Your task to perform on an android device: open app "Grab" (install if not already installed) and go to login screen Image 0: 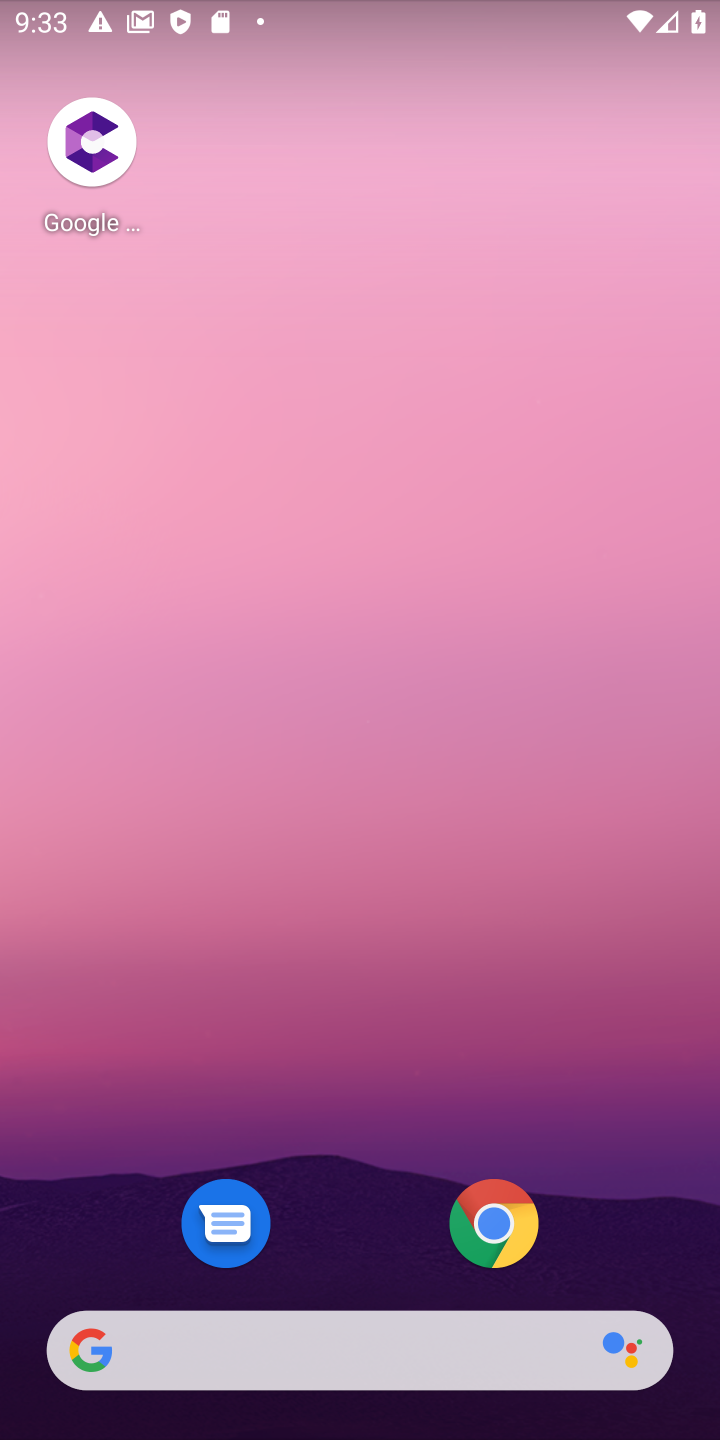
Step 0: press home button
Your task to perform on an android device: open app "Grab" (install if not already installed) and go to login screen Image 1: 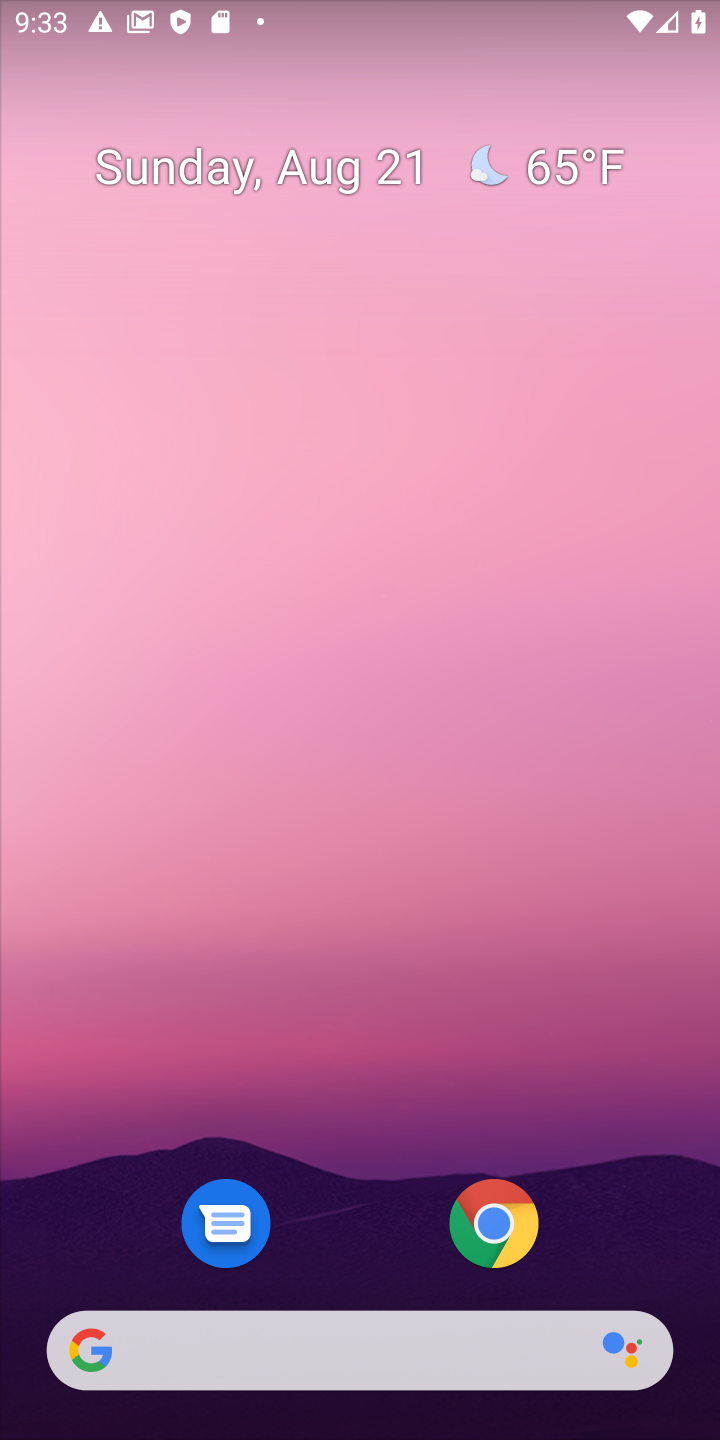
Step 1: drag from (635, 1055) to (619, 286)
Your task to perform on an android device: open app "Grab" (install if not already installed) and go to login screen Image 2: 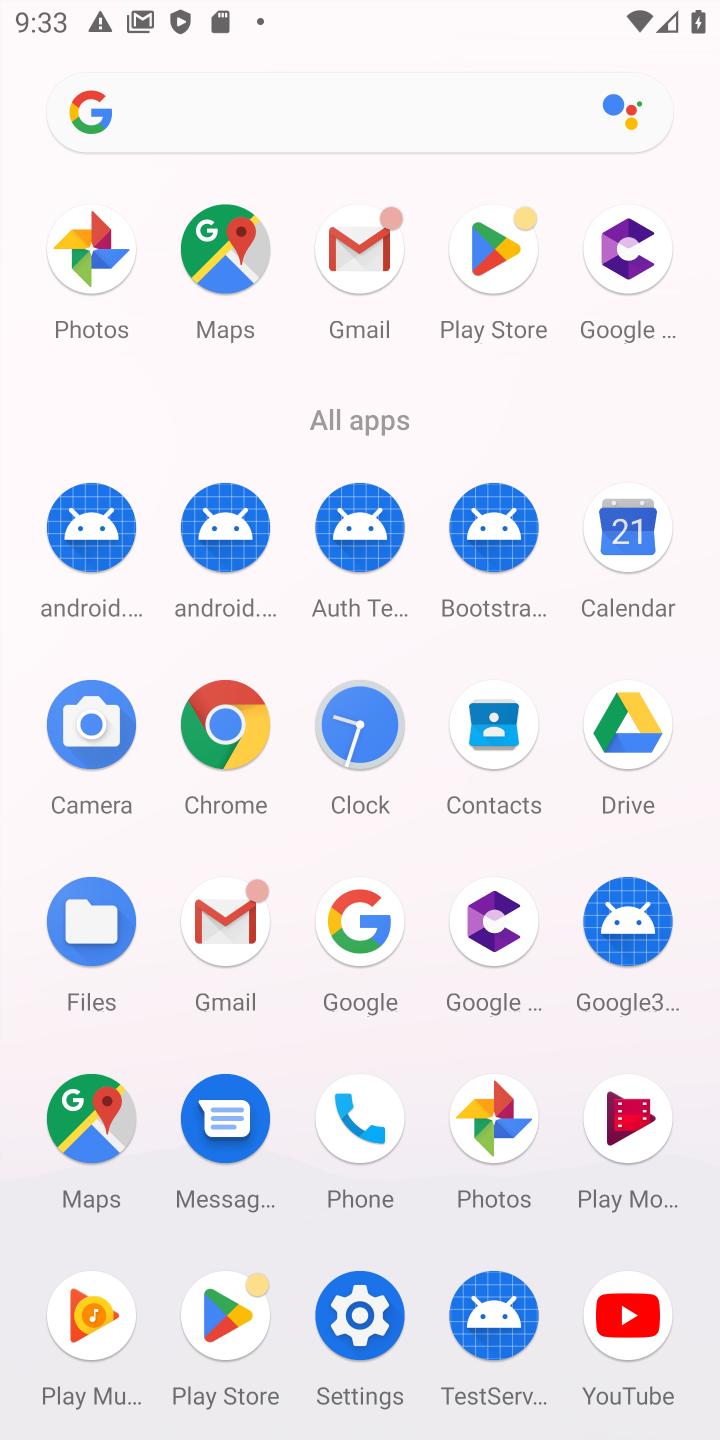
Step 2: click (505, 260)
Your task to perform on an android device: open app "Grab" (install if not already installed) and go to login screen Image 3: 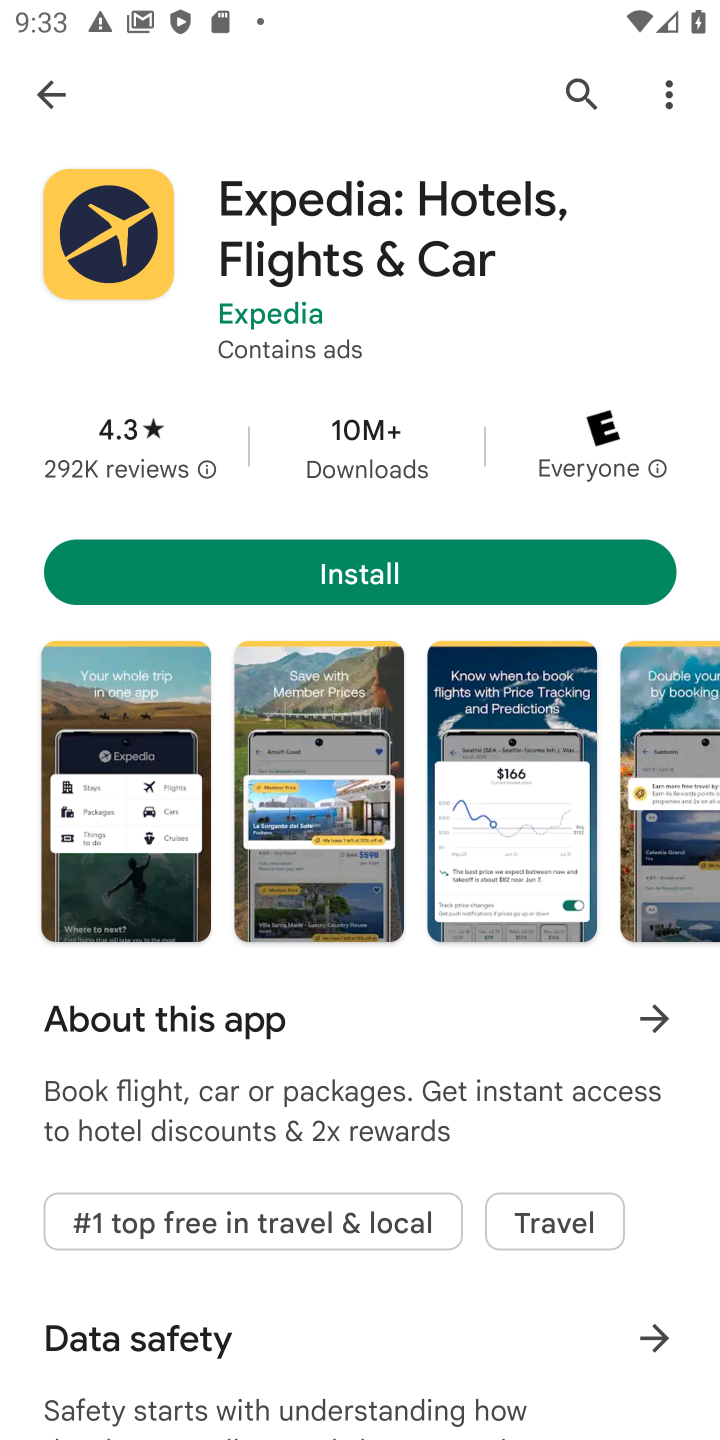
Step 3: press back button
Your task to perform on an android device: open app "Grab" (install if not already installed) and go to login screen Image 4: 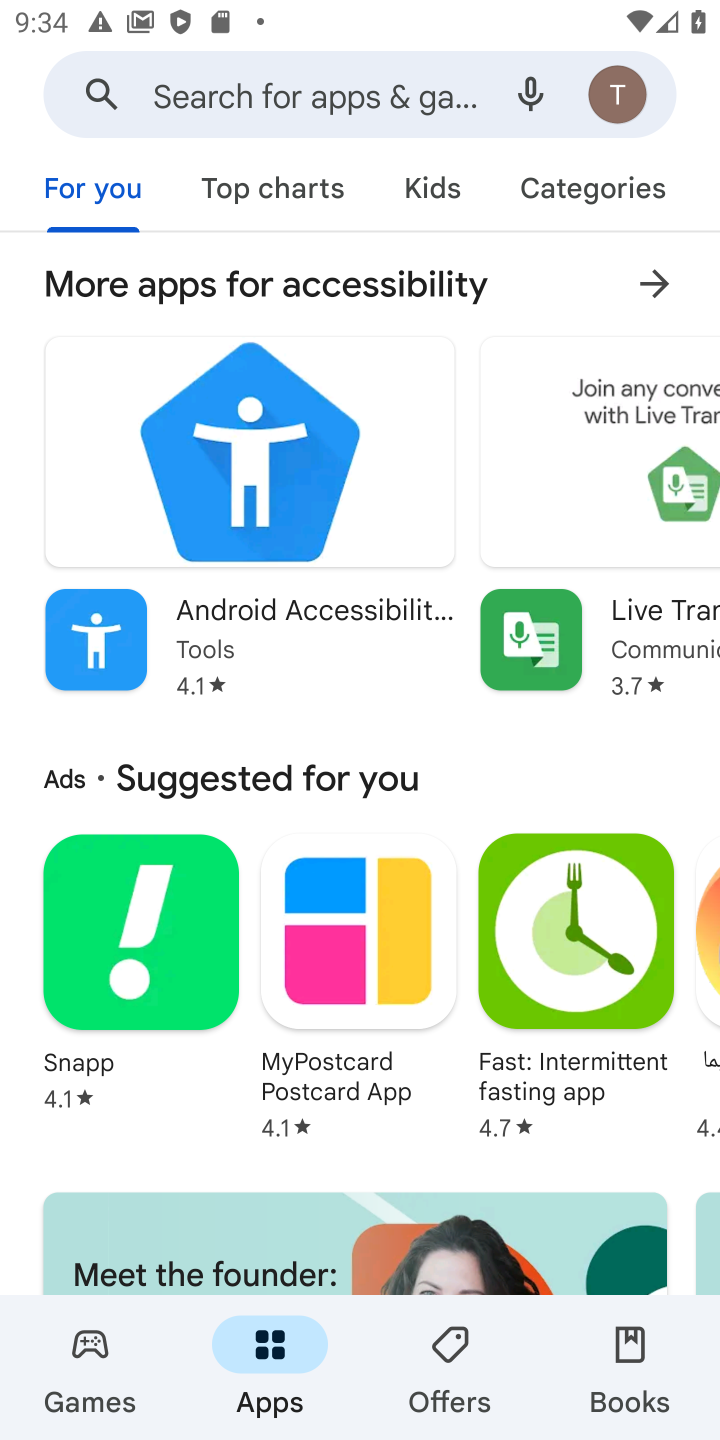
Step 4: click (386, 95)
Your task to perform on an android device: open app "Grab" (install if not already installed) and go to login screen Image 5: 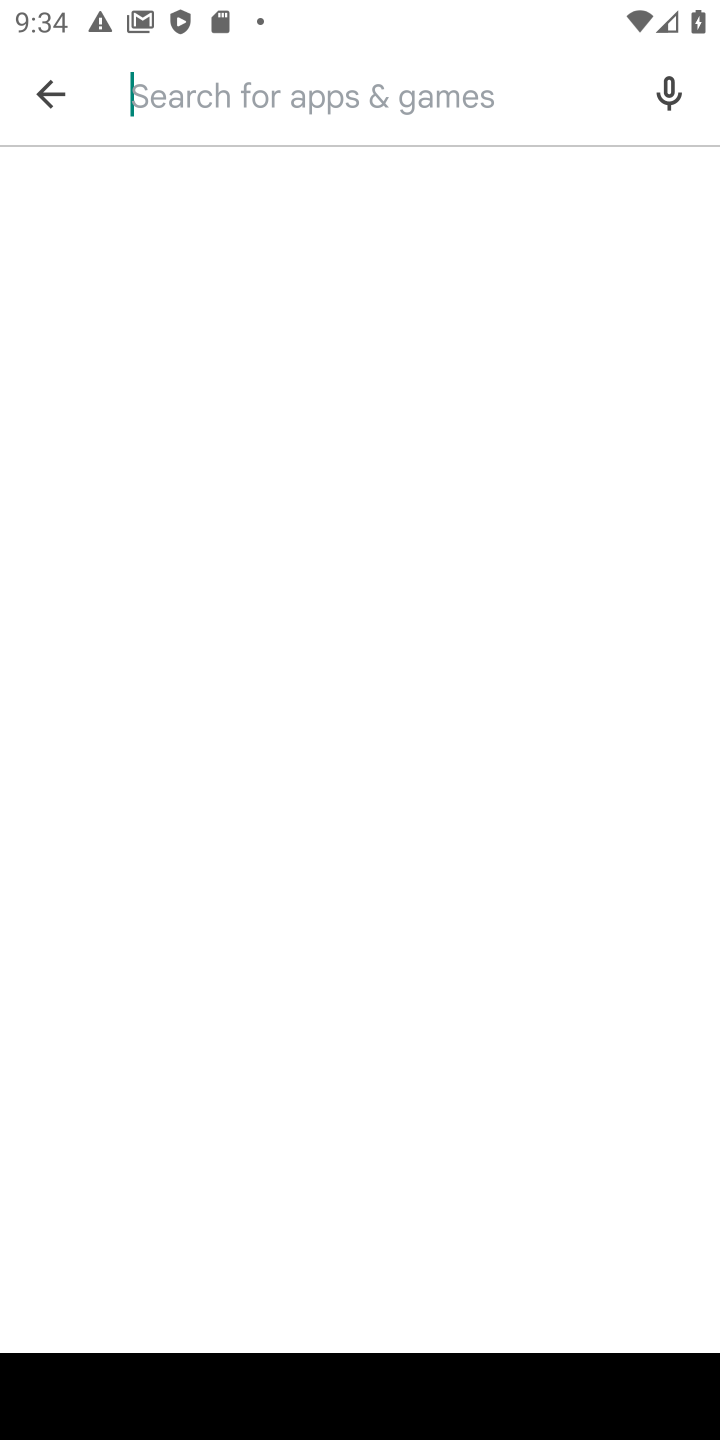
Step 5: press enter
Your task to perform on an android device: open app "Grab" (install if not already installed) and go to login screen Image 6: 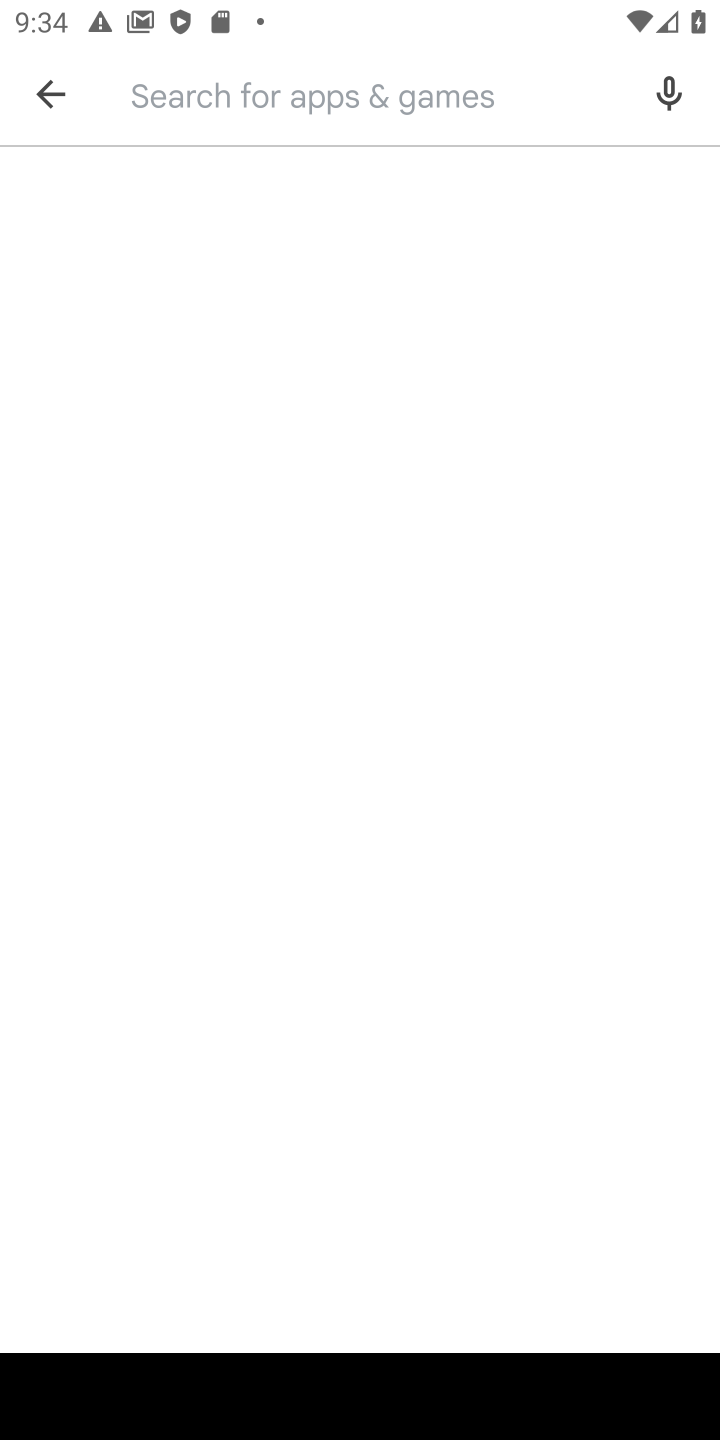
Step 6: type "grab"
Your task to perform on an android device: open app "Grab" (install if not already installed) and go to login screen Image 7: 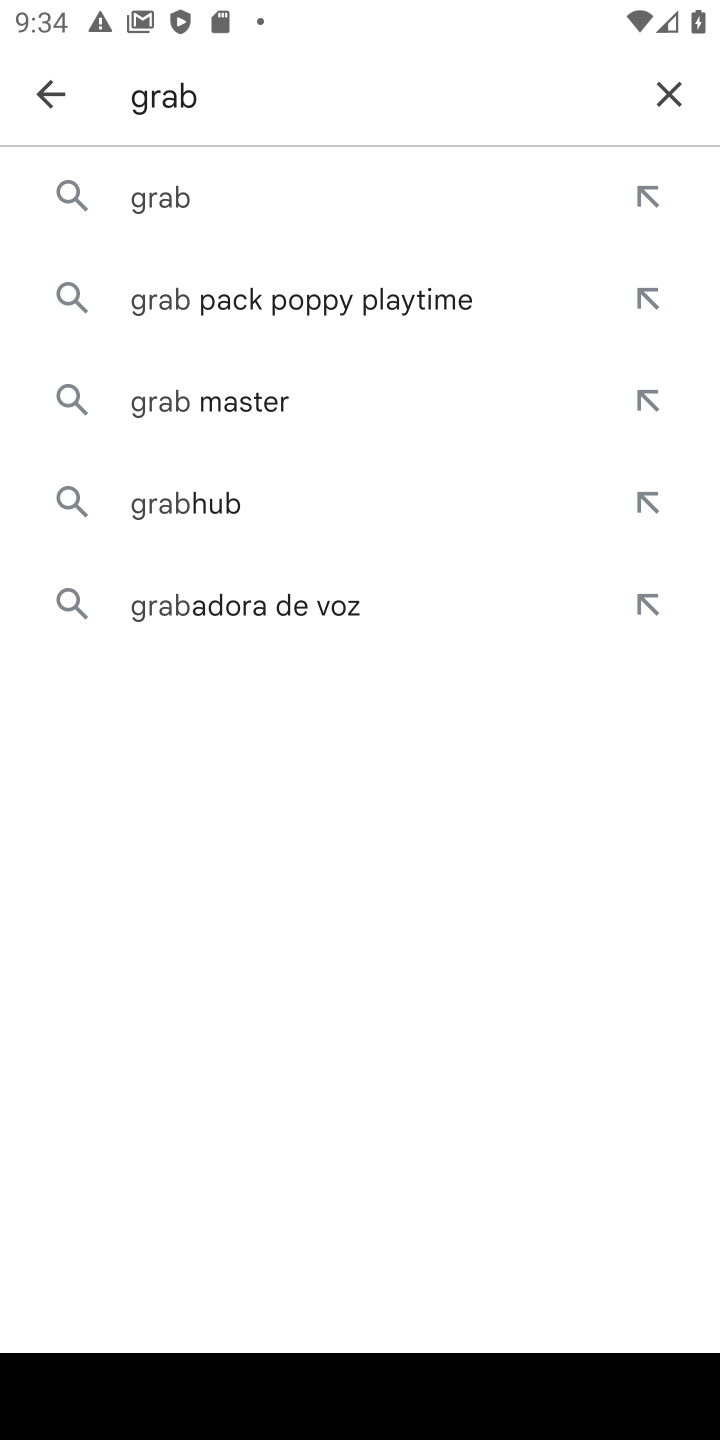
Step 7: click (337, 200)
Your task to perform on an android device: open app "Grab" (install if not already installed) and go to login screen Image 8: 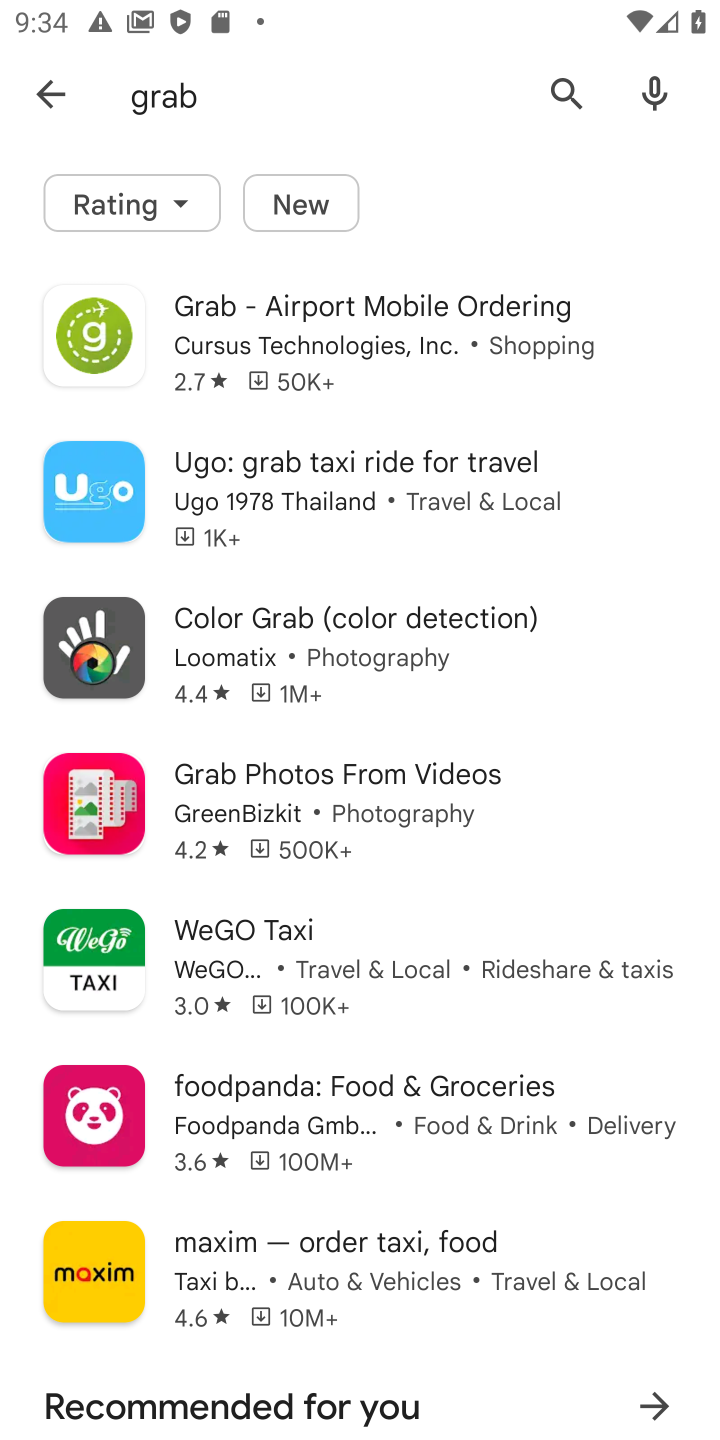
Step 8: task complete